Your task to perform on an android device: Go to Yahoo.com Image 0: 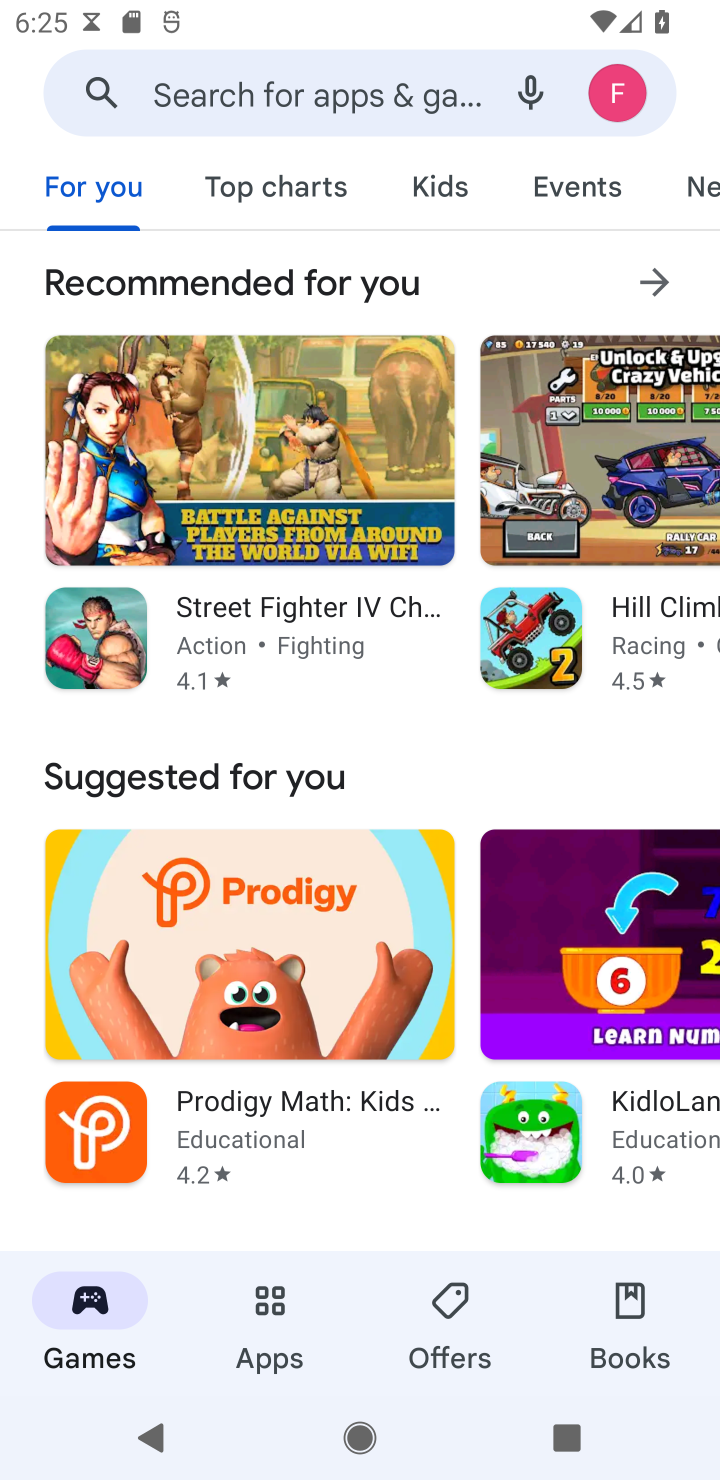
Step 0: press home button
Your task to perform on an android device: Go to Yahoo.com Image 1: 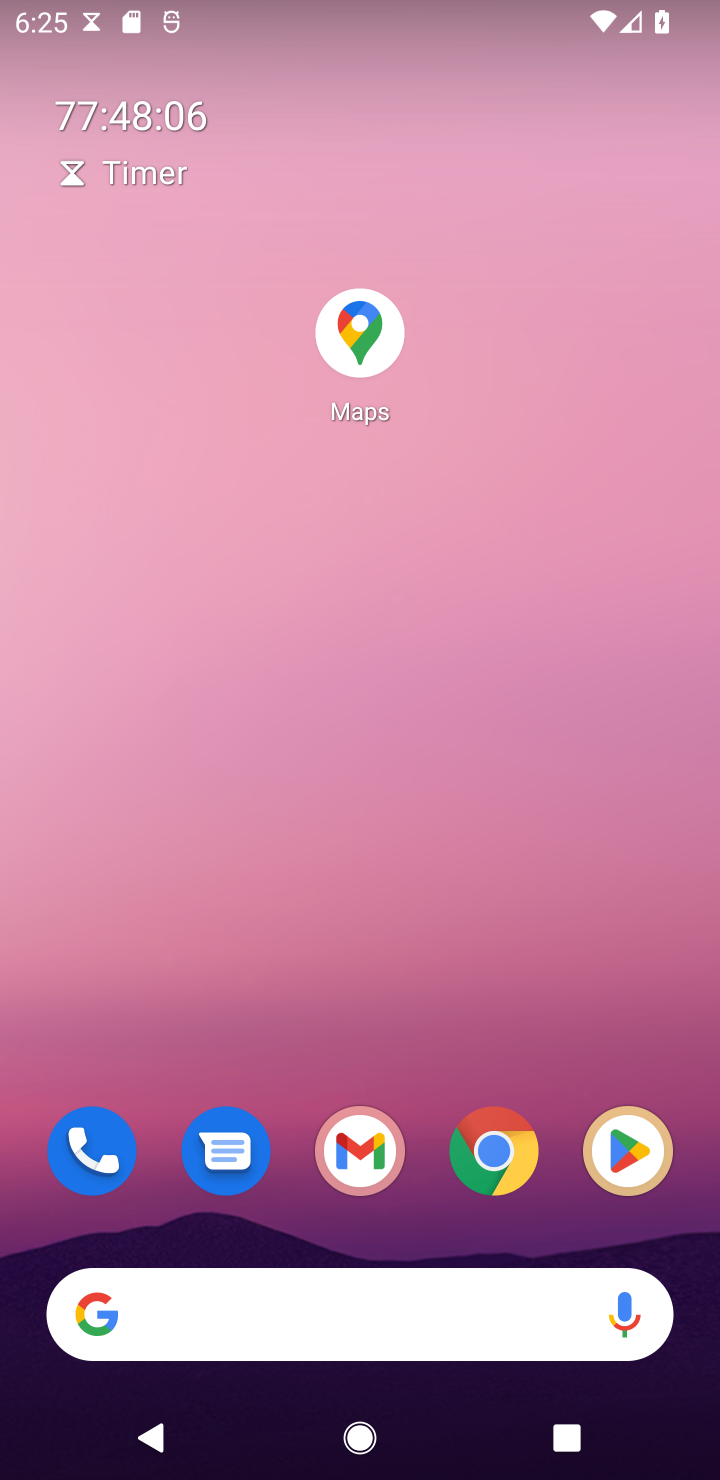
Step 1: drag from (218, 1259) to (151, 89)
Your task to perform on an android device: Go to Yahoo.com Image 2: 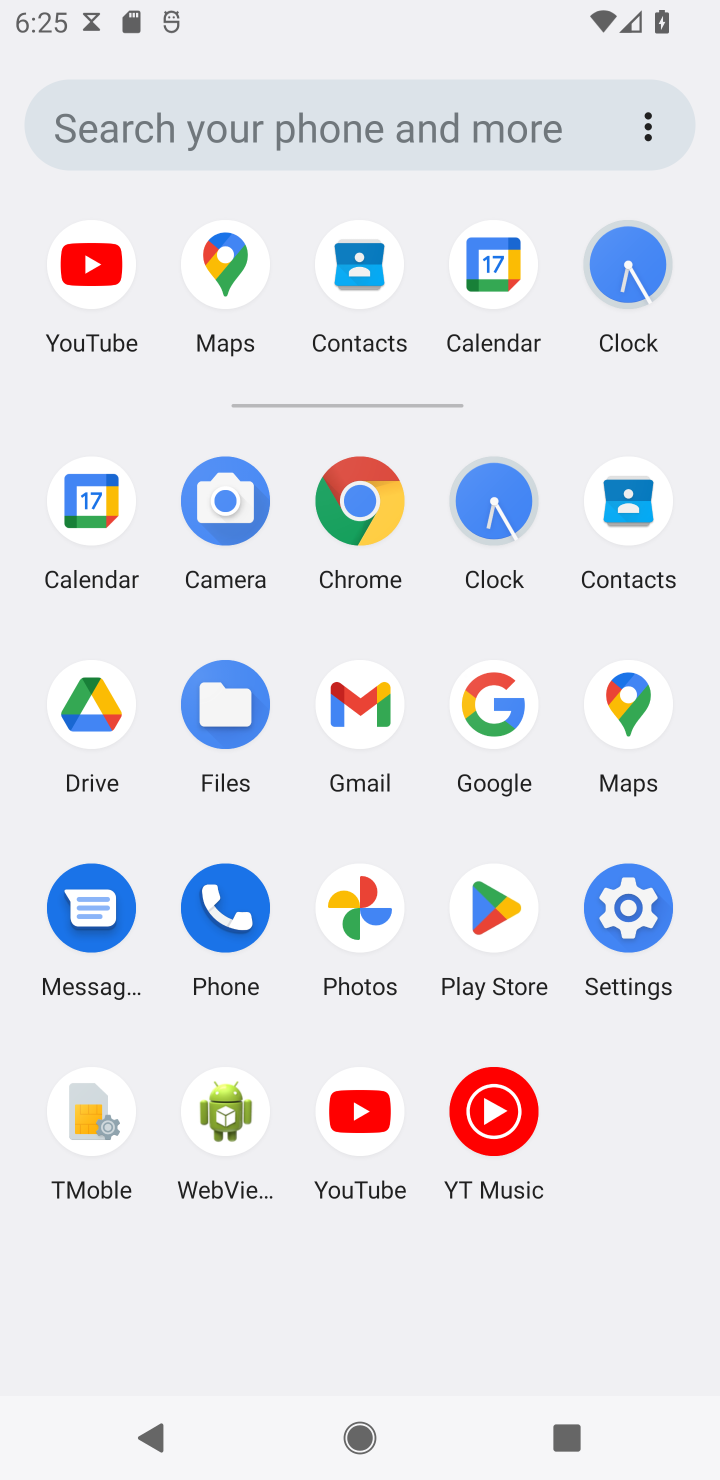
Step 2: click (312, 480)
Your task to perform on an android device: Go to Yahoo.com Image 3: 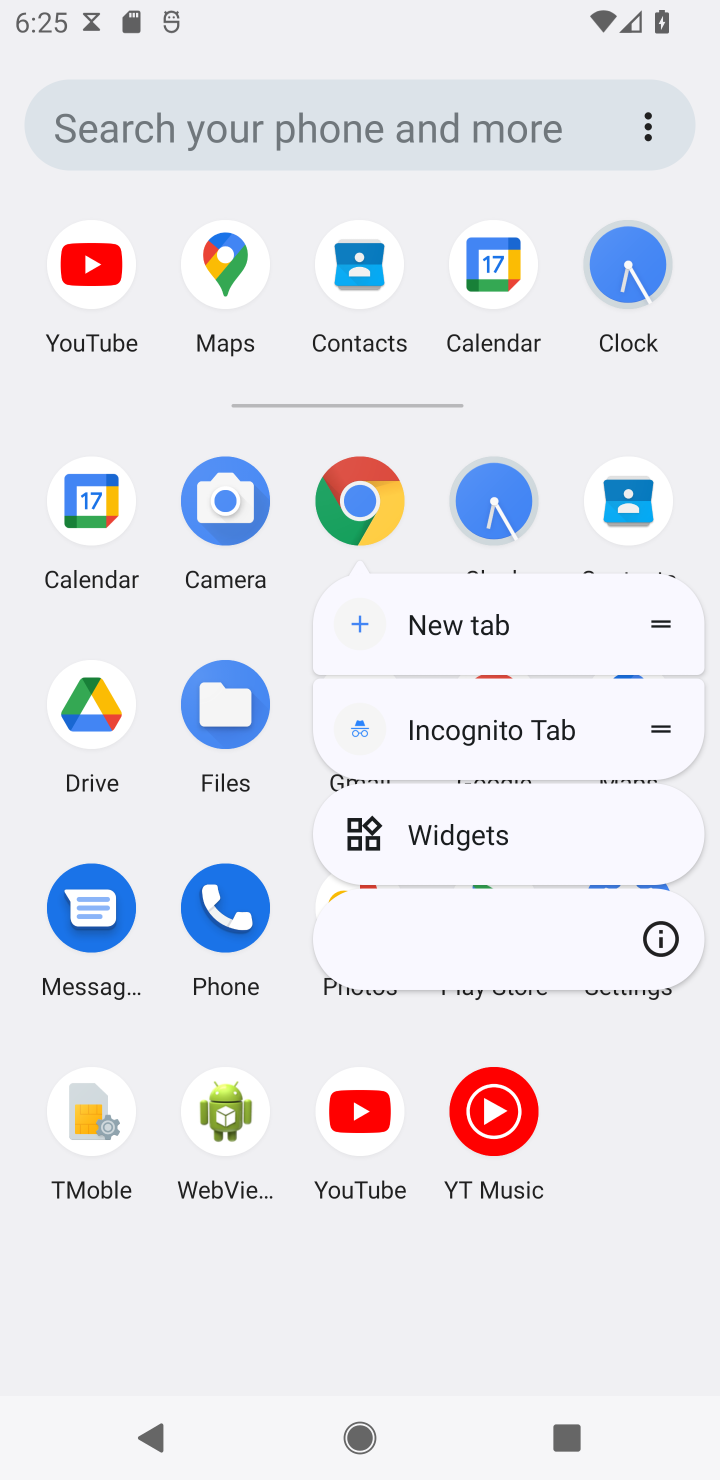
Step 3: click (351, 514)
Your task to perform on an android device: Go to Yahoo.com Image 4: 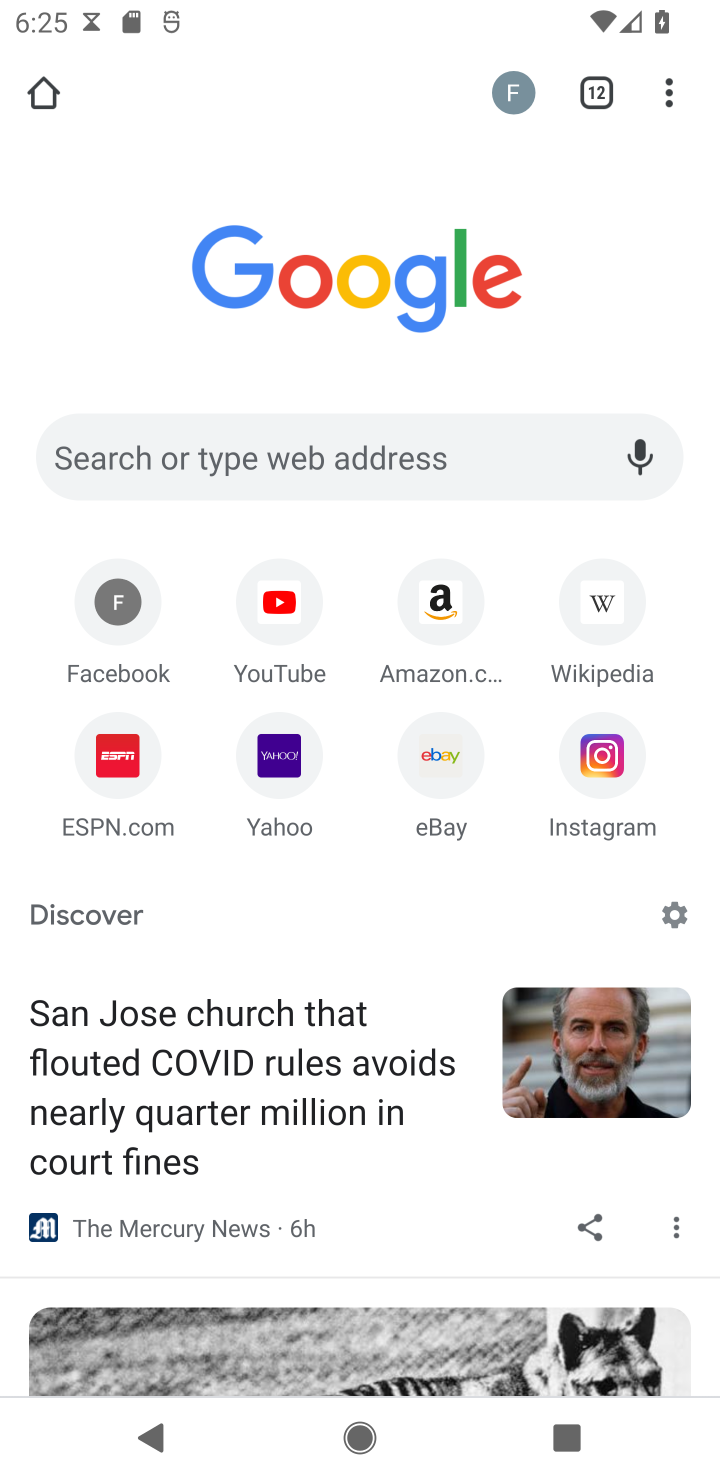
Step 4: click (262, 780)
Your task to perform on an android device: Go to Yahoo.com Image 5: 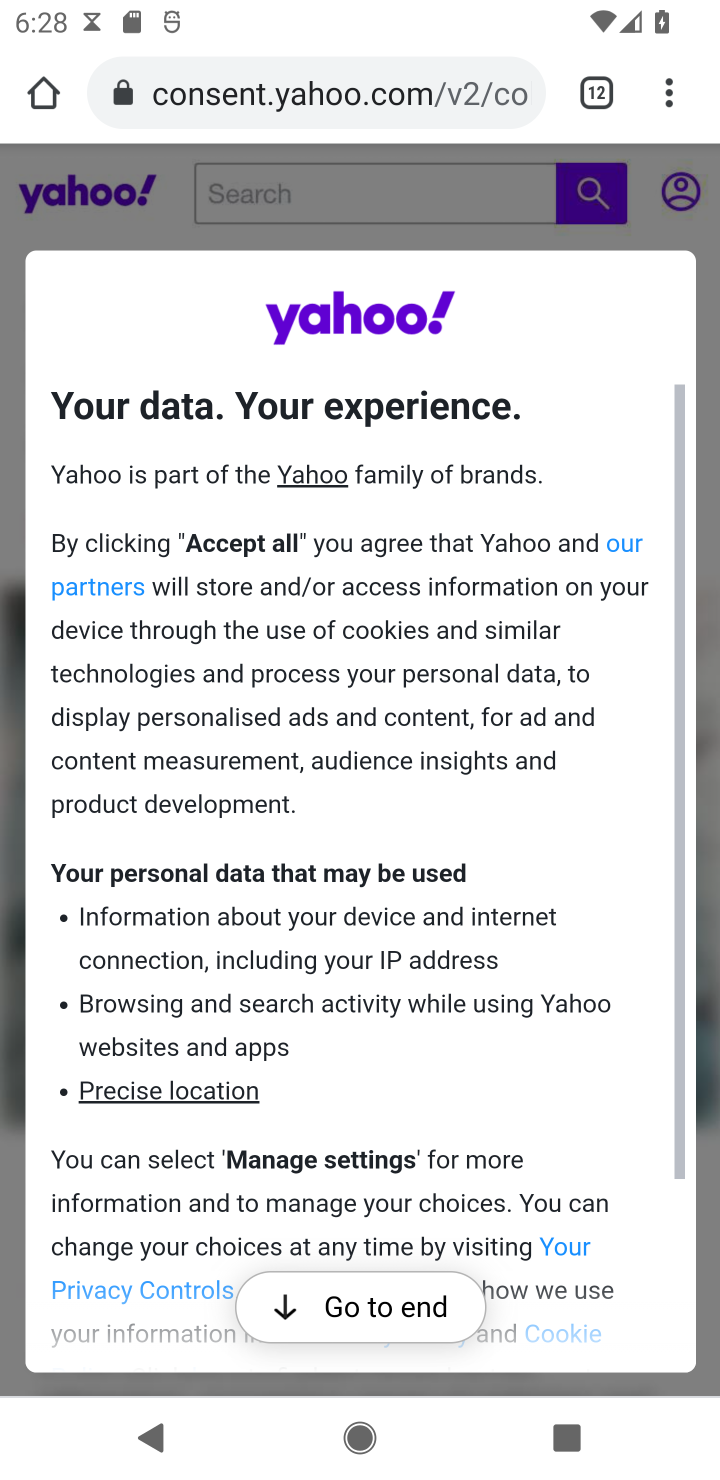
Step 5: task complete